Your task to perform on an android device: Open the calendar and show me this week's events? Image 0: 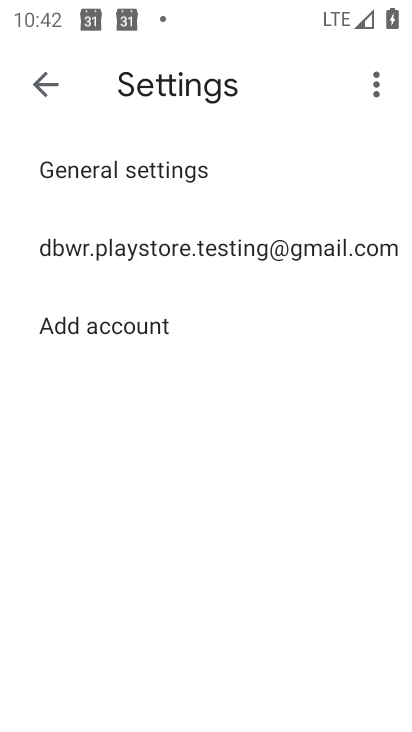
Step 0: press home button
Your task to perform on an android device: Open the calendar and show me this week's events? Image 1: 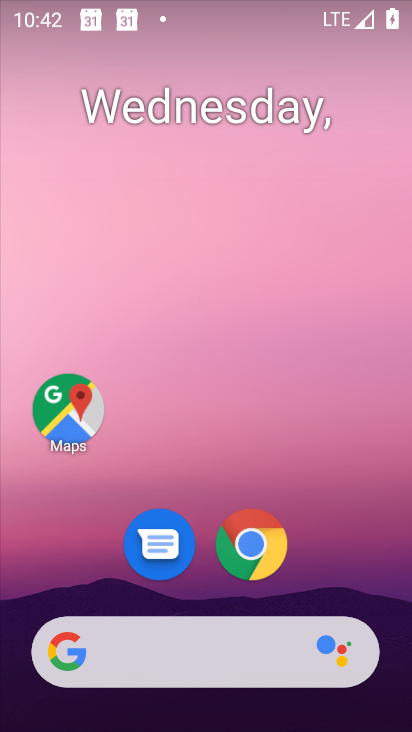
Step 1: drag from (300, 595) to (277, 65)
Your task to perform on an android device: Open the calendar and show me this week's events? Image 2: 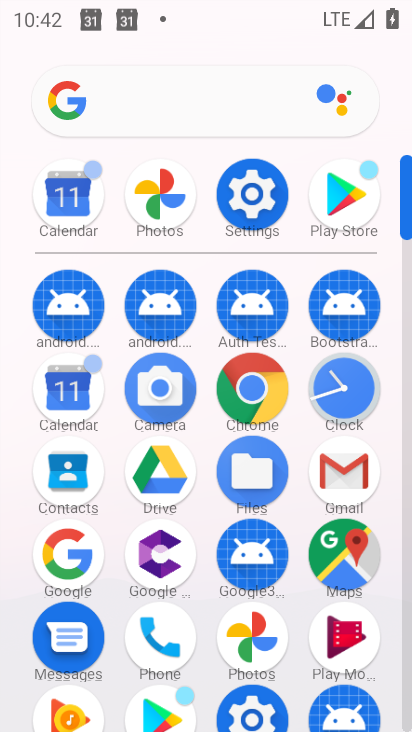
Step 2: click (43, 397)
Your task to perform on an android device: Open the calendar and show me this week's events? Image 3: 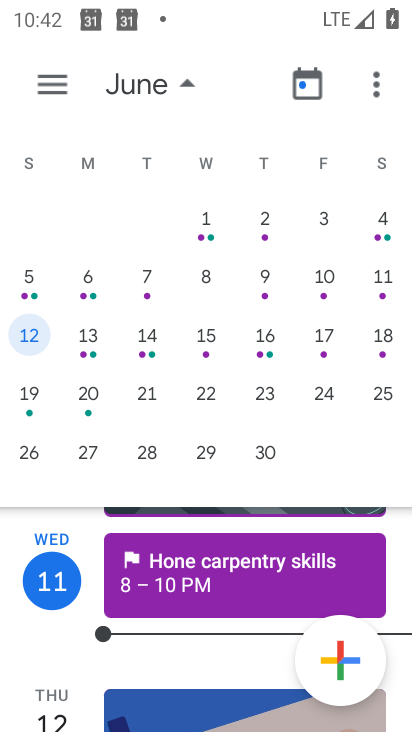
Step 3: drag from (23, 335) to (355, 383)
Your task to perform on an android device: Open the calendar and show me this week's events? Image 4: 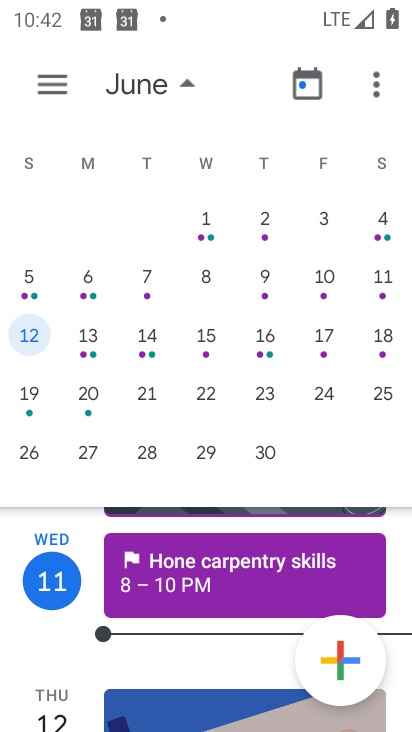
Step 4: drag from (55, 319) to (397, 396)
Your task to perform on an android device: Open the calendar and show me this week's events? Image 5: 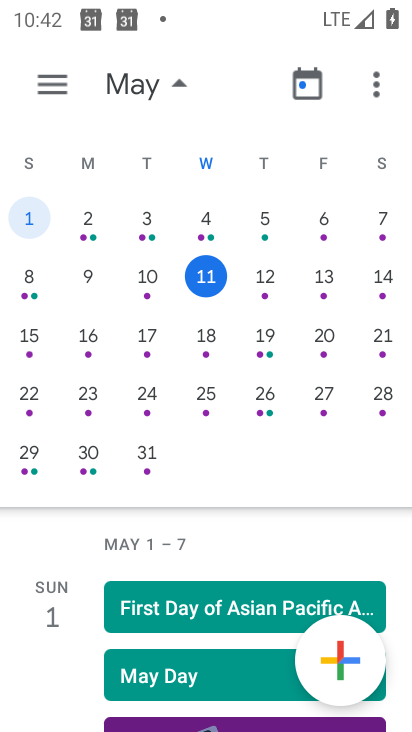
Step 5: click (259, 293)
Your task to perform on an android device: Open the calendar and show me this week's events? Image 6: 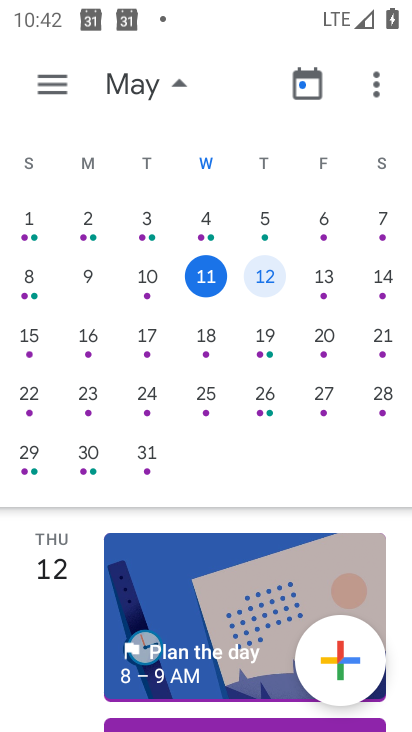
Step 6: task complete